Your task to perform on an android device: uninstall "Upside-Cash back on gas & food" Image 0: 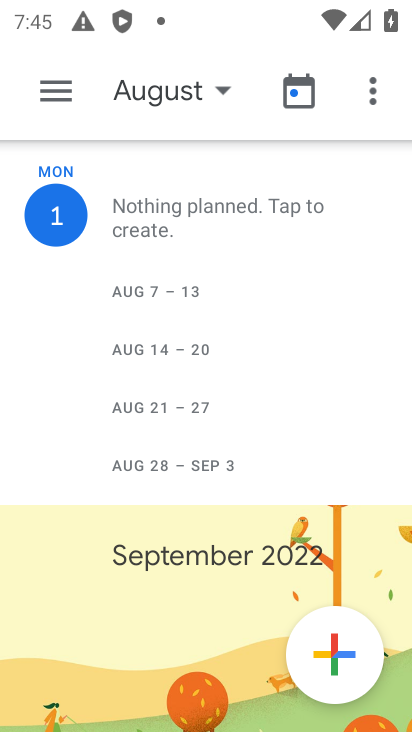
Step 0: press home button
Your task to perform on an android device: uninstall "Upside-Cash back on gas & food" Image 1: 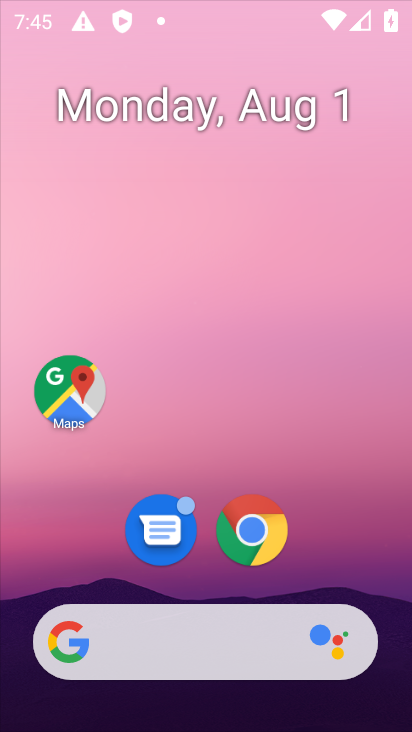
Step 1: drag from (269, 513) to (350, 1)
Your task to perform on an android device: uninstall "Upside-Cash back on gas & food" Image 2: 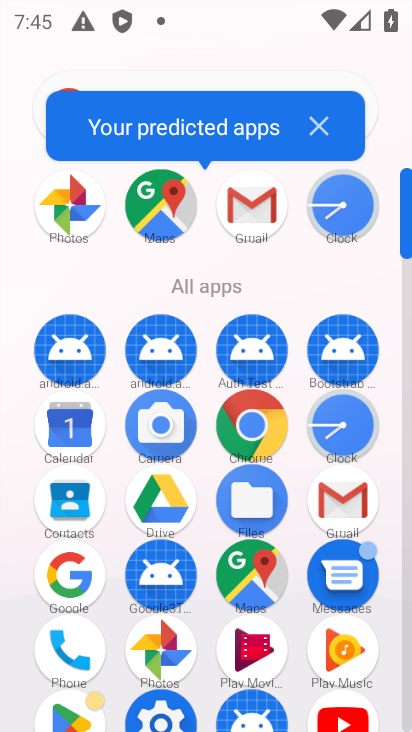
Step 2: drag from (391, 589) to (408, 189)
Your task to perform on an android device: uninstall "Upside-Cash back on gas & food" Image 3: 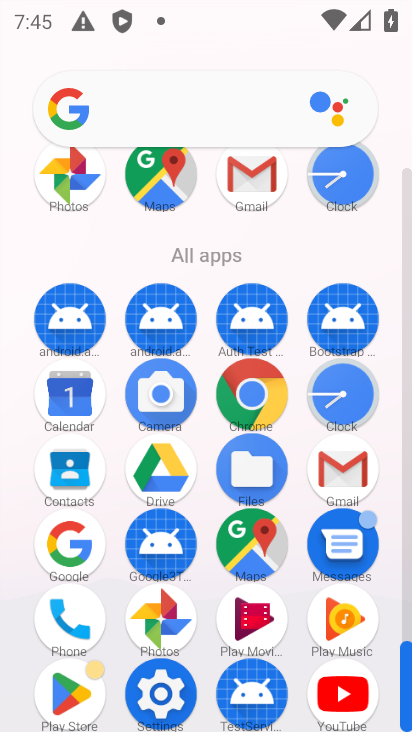
Step 3: click (80, 686)
Your task to perform on an android device: uninstall "Upside-Cash back on gas & food" Image 4: 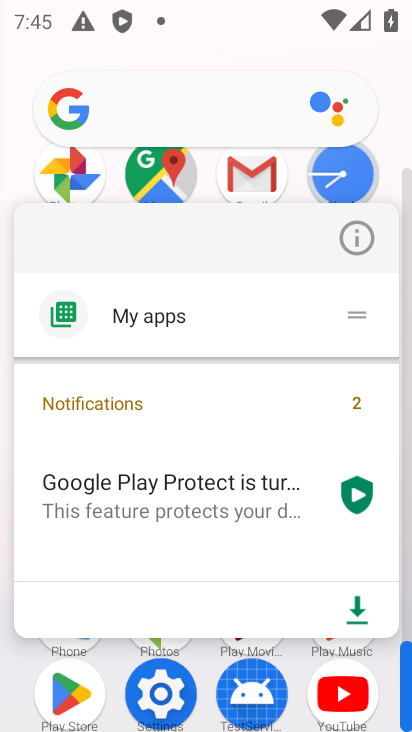
Step 4: click (79, 695)
Your task to perform on an android device: uninstall "Upside-Cash back on gas & food" Image 5: 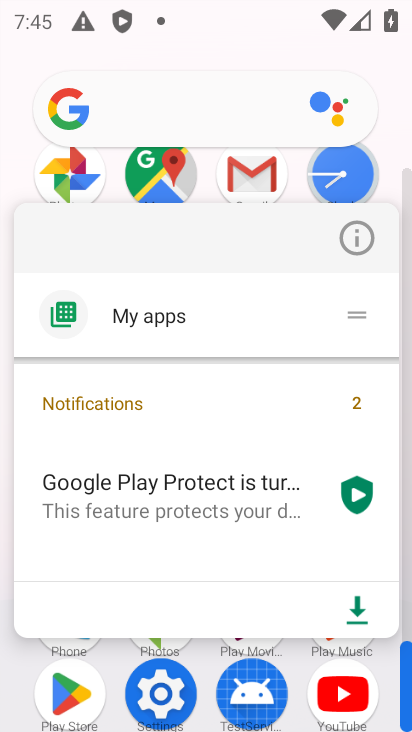
Step 5: click (79, 694)
Your task to perform on an android device: uninstall "Upside-Cash back on gas & food" Image 6: 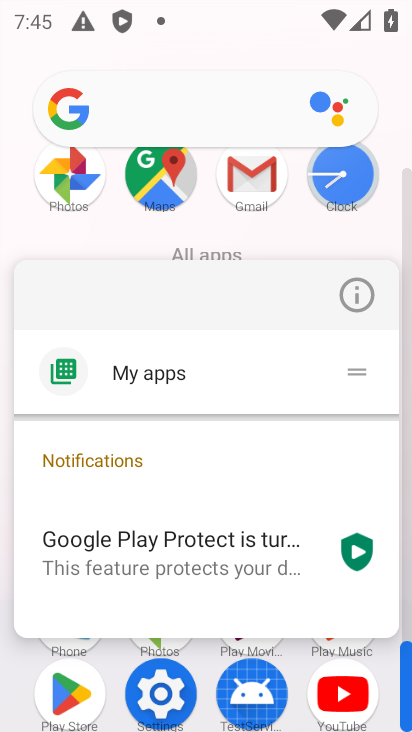
Step 6: click (67, 697)
Your task to perform on an android device: uninstall "Upside-Cash back on gas & food" Image 7: 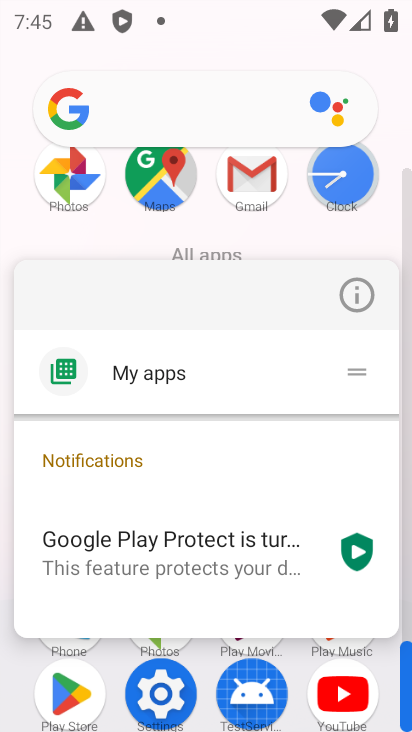
Step 7: click (67, 697)
Your task to perform on an android device: uninstall "Upside-Cash back on gas & food" Image 8: 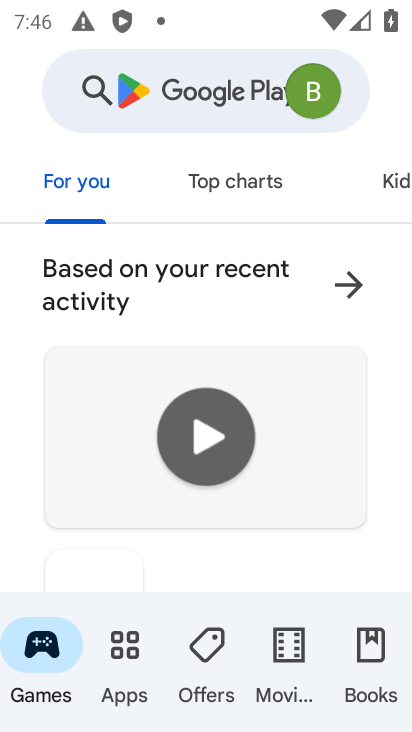
Step 8: click (185, 90)
Your task to perform on an android device: uninstall "Upside-Cash back on gas & food" Image 9: 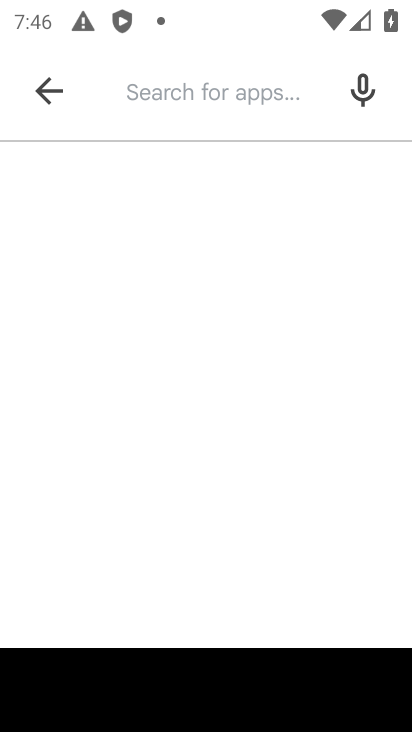
Step 9: type "Upside-Cash back on gas & food"
Your task to perform on an android device: uninstall "Upside-Cash back on gas & food" Image 10: 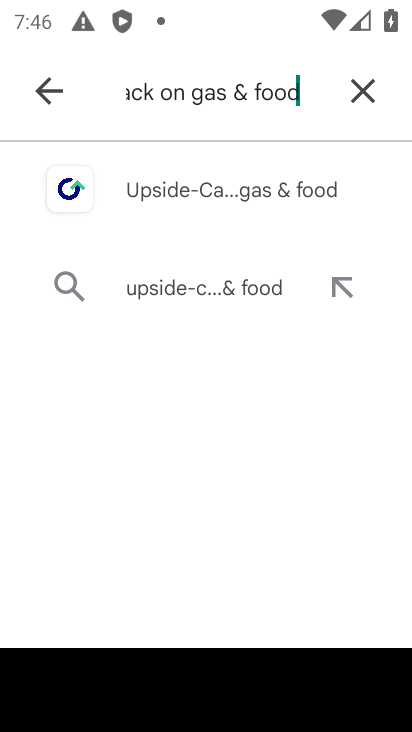
Step 10: click (254, 198)
Your task to perform on an android device: uninstall "Upside-Cash back on gas & food" Image 11: 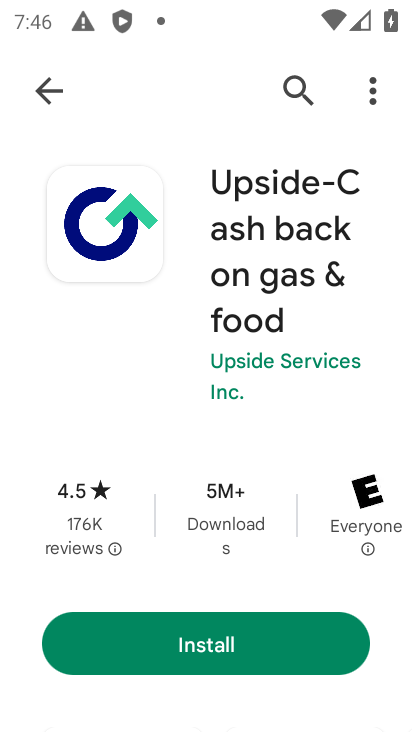
Step 11: task complete